Your task to perform on an android device: Go to eBay Image 0: 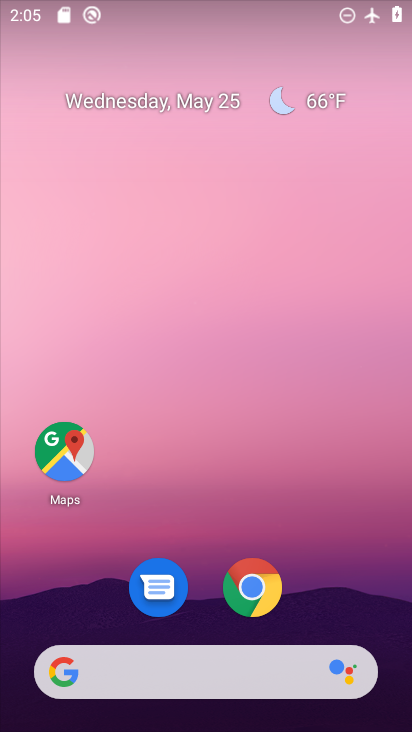
Step 0: drag from (364, 590) to (370, 109)
Your task to perform on an android device: Go to eBay Image 1: 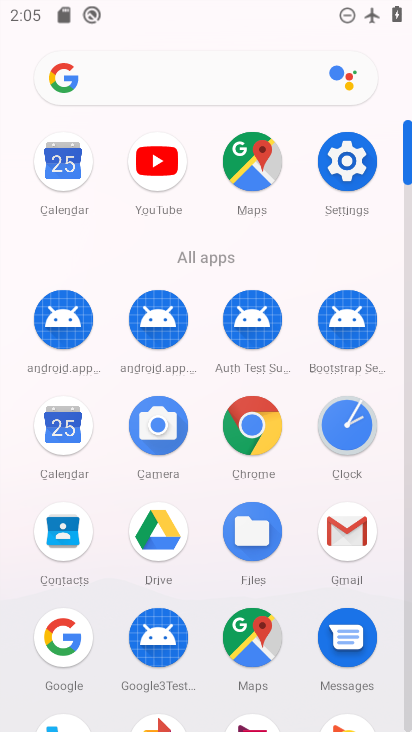
Step 1: click (279, 449)
Your task to perform on an android device: Go to eBay Image 2: 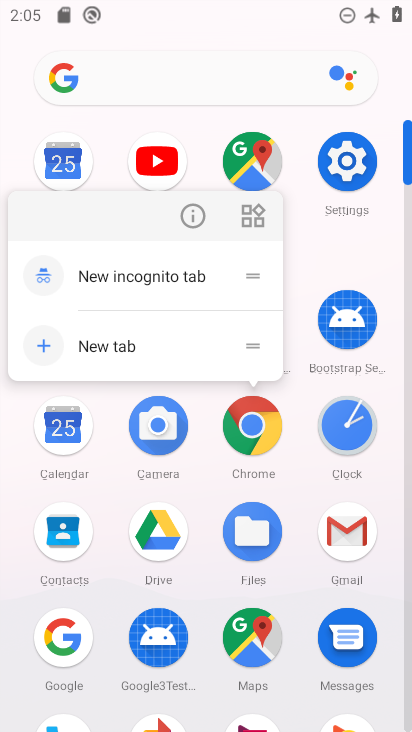
Step 2: click (260, 444)
Your task to perform on an android device: Go to eBay Image 3: 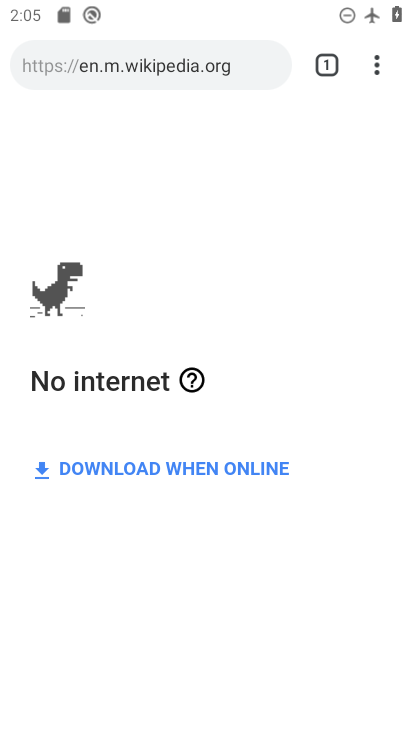
Step 3: task complete